Your task to perform on an android device: Search for sushi restaurants on Maps Image 0: 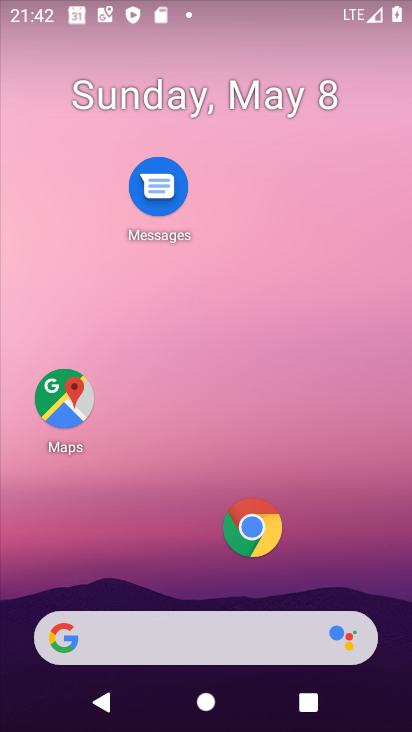
Step 0: click (64, 399)
Your task to perform on an android device: Search for sushi restaurants on Maps Image 1: 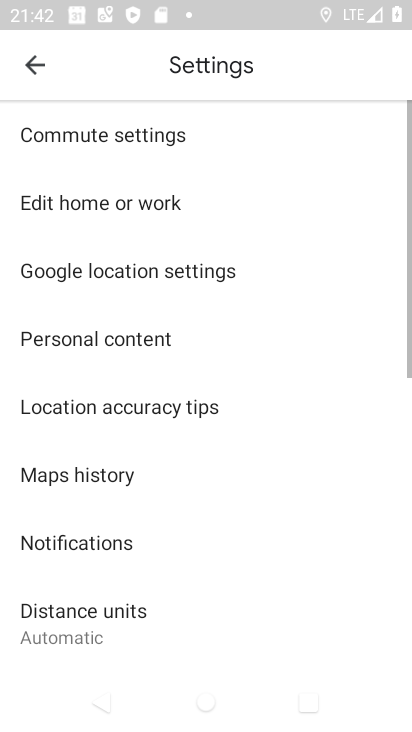
Step 1: press back button
Your task to perform on an android device: Search for sushi restaurants on Maps Image 2: 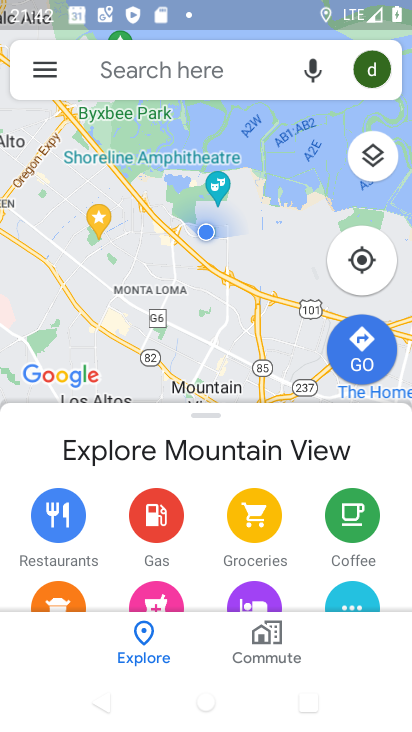
Step 2: click (171, 69)
Your task to perform on an android device: Search for sushi restaurants on Maps Image 3: 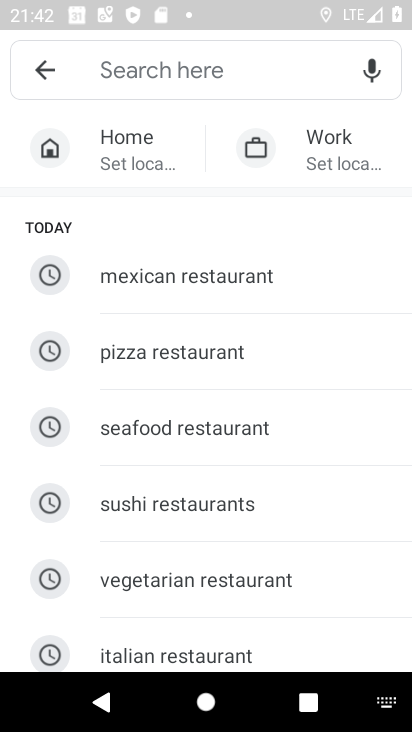
Step 3: click (189, 513)
Your task to perform on an android device: Search for sushi restaurants on Maps Image 4: 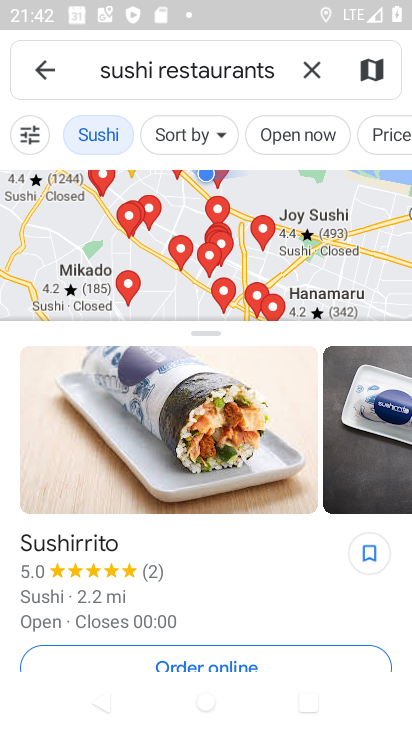
Step 4: task complete